Your task to perform on an android device: Go to network settings Image 0: 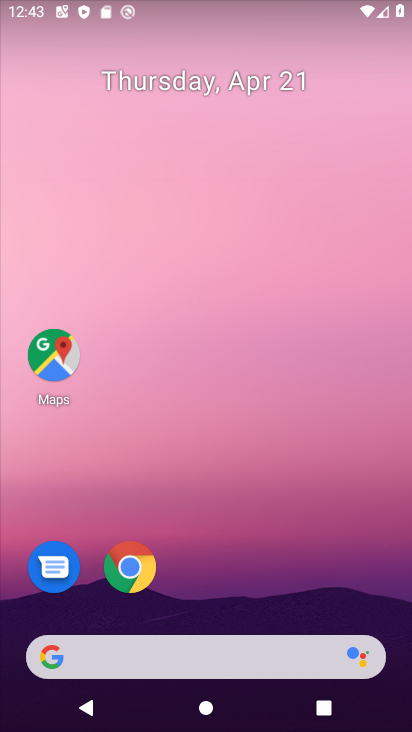
Step 0: press home button
Your task to perform on an android device: Go to network settings Image 1: 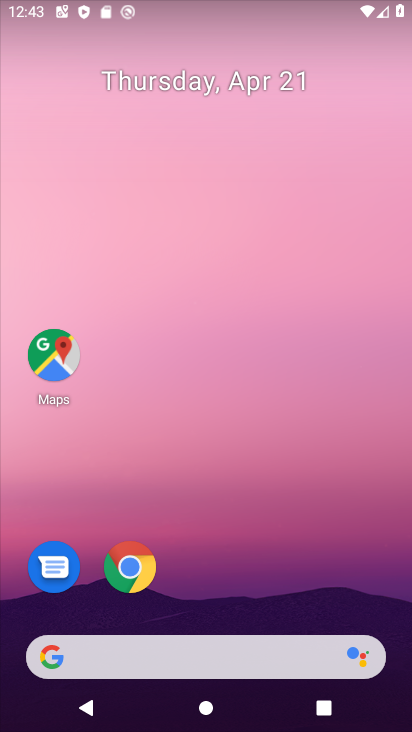
Step 1: drag from (309, 567) to (282, 117)
Your task to perform on an android device: Go to network settings Image 2: 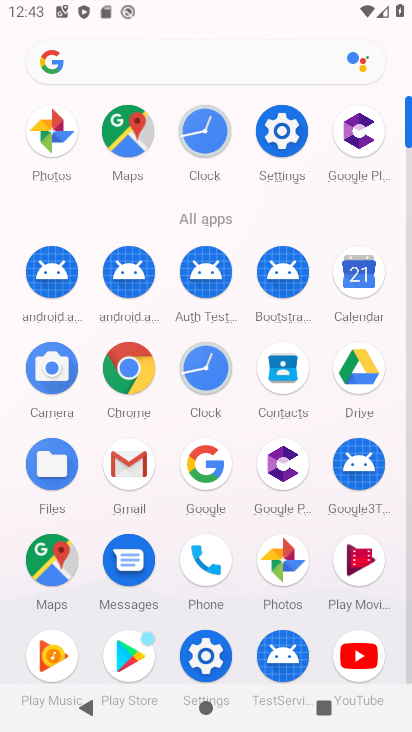
Step 2: click (280, 119)
Your task to perform on an android device: Go to network settings Image 3: 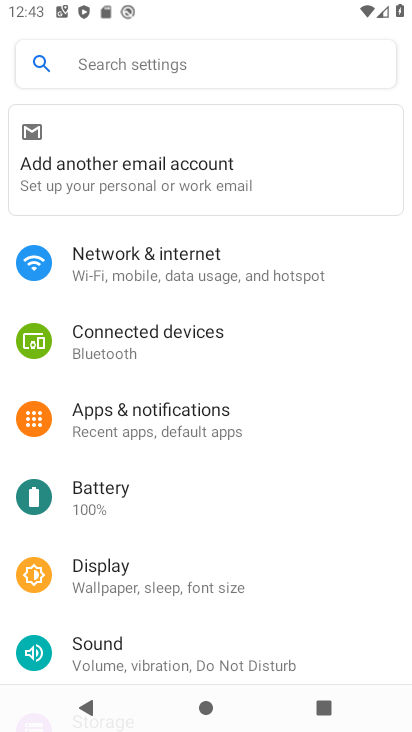
Step 3: click (241, 282)
Your task to perform on an android device: Go to network settings Image 4: 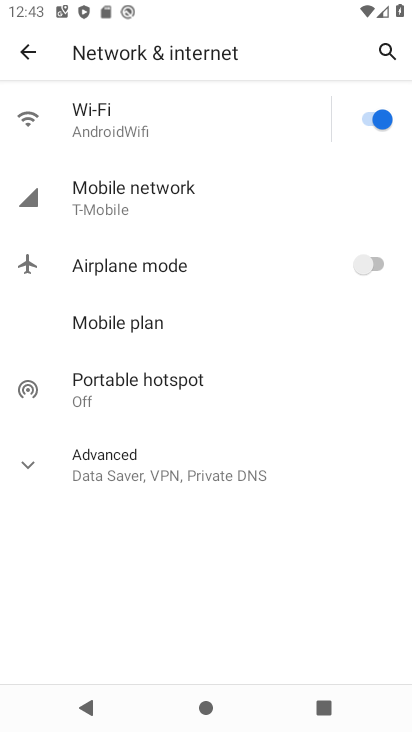
Step 4: task complete